Your task to perform on an android device: What's on my calendar tomorrow? Image 0: 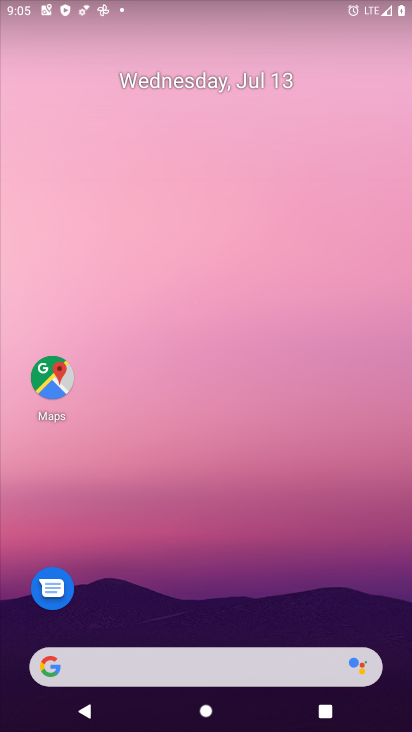
Step 0: drag from (164, 698) to (349, 4)
Your task to perform on an android device: What's on my calendar tomorrow? Image 1: 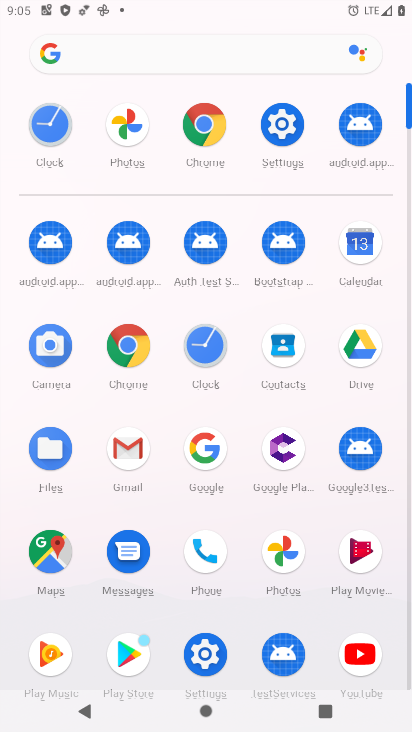
Step 1: click (369, 233)
Your task to perform on an android device: What's on my calendar tomorrow? Image 2: 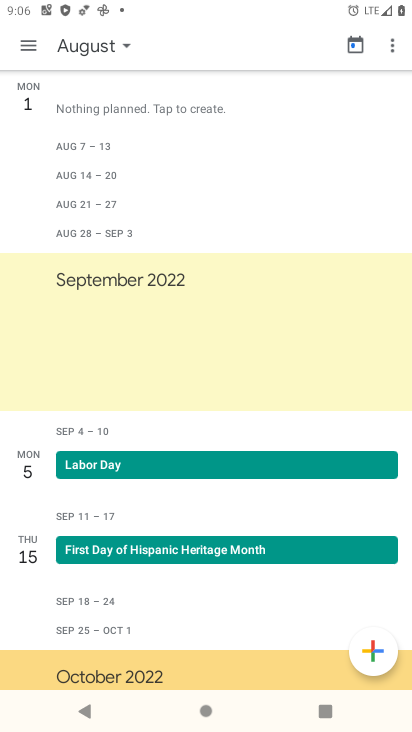
Step 2: click (101, 42)
Your task to perform on an android device: What's on my calendar tomorrow? Image 3: 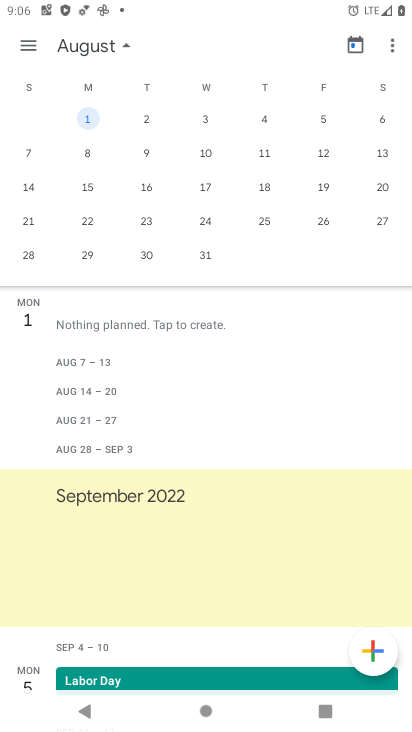
Step 3: drag from (72, 183) to (394, 162)
Your task to perform on an android device: What's on my calendar tomorrow? Image 4: 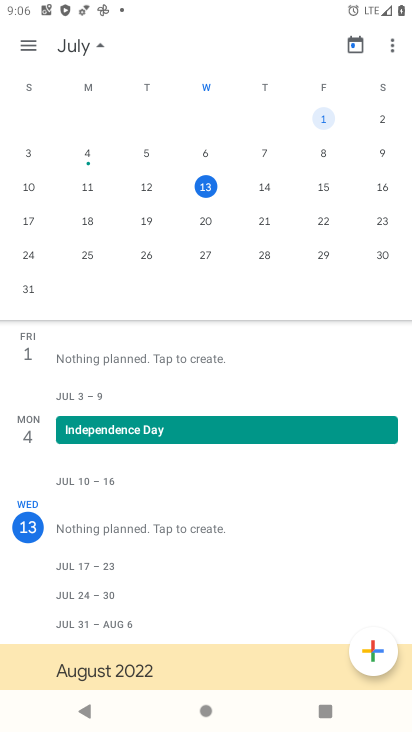
Step 4: click (268, 188)
Your task to perform on an android device: What's on my calendar tomorrow? Image 5: 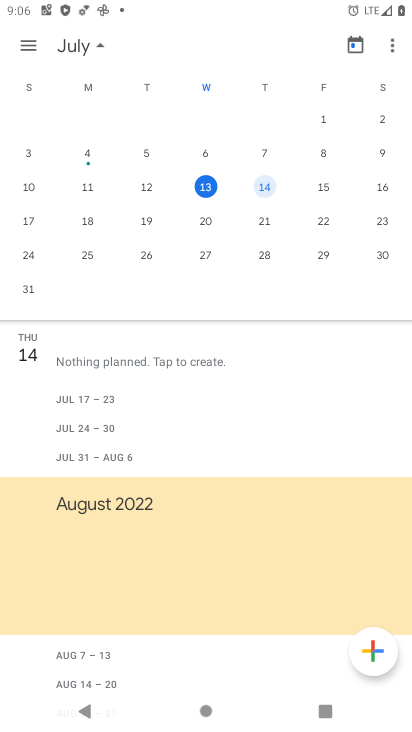
Step 5: task complete